Your task to perform on an android device: Go to privacy settings Image 0: 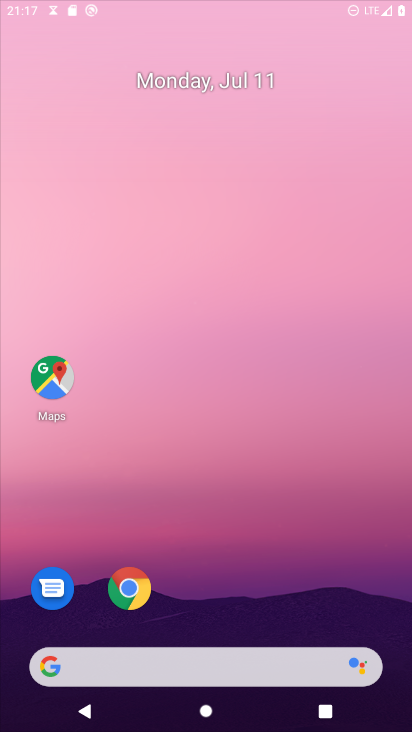
Step 0: press home button
Your task to perform on an android device: Go to privacy settings Image 1: 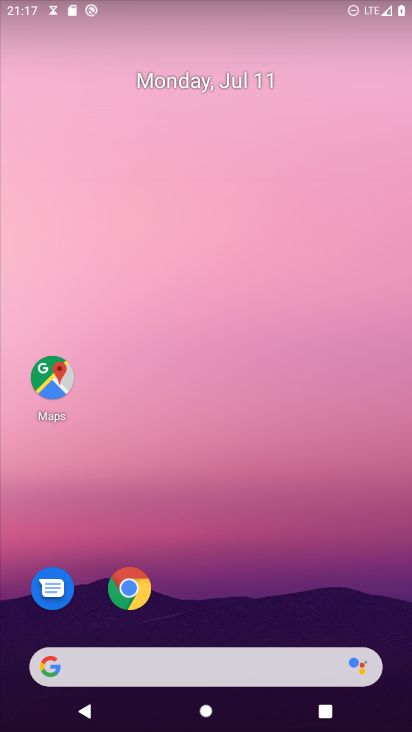
Step 1: drag from (274, 581) to (278, 52)
Your task to perform on an android device: Go to privacy settings Image 2: 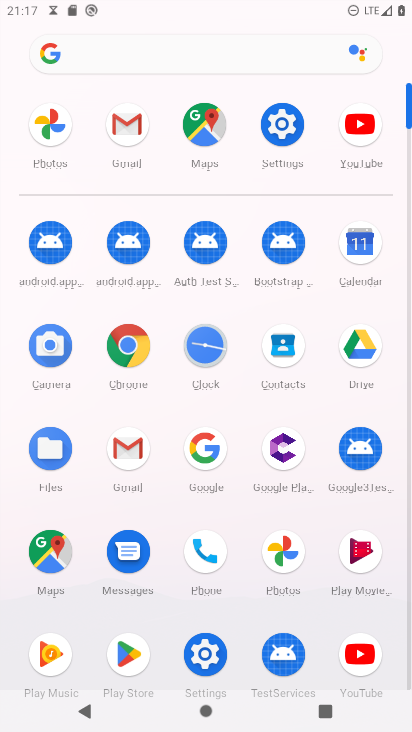
Step 2: click (286, 130)
Your task to perform on an android device: Go to privacy settings Image 3: 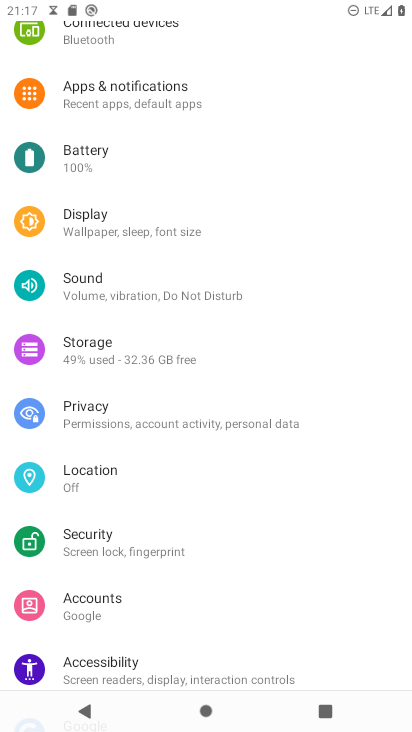
Step 3: click (84, 411)
Your task to perform on an android device: Go to privacy settings Image 4: 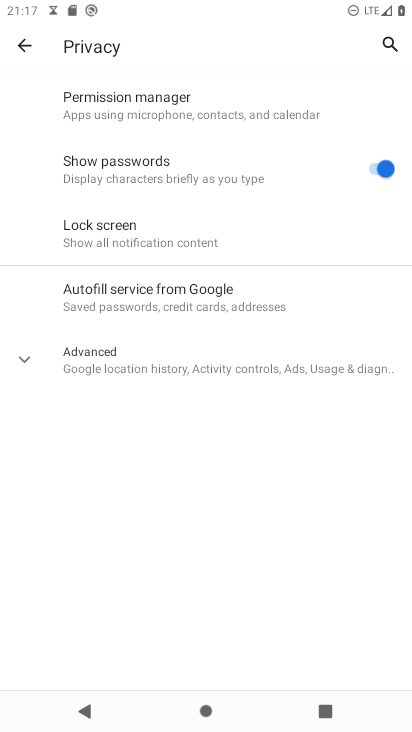
Step 4: task complete